Your task to perform on an android device: delete location history Image 0: 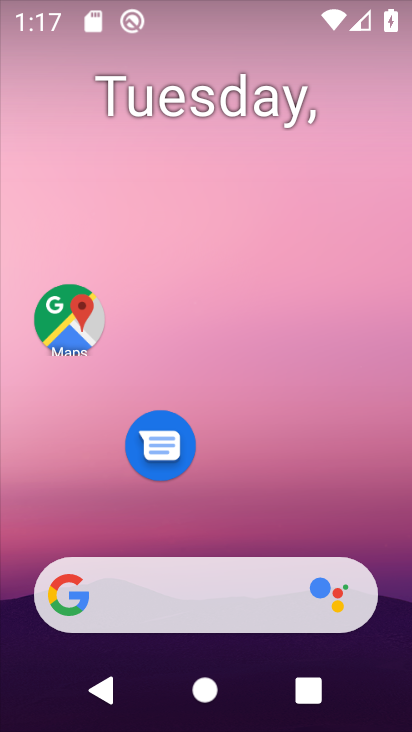
Step 0: drag from (279, 503) to (217, 25)
Your task to perform on an android device: delete location history Image 1: 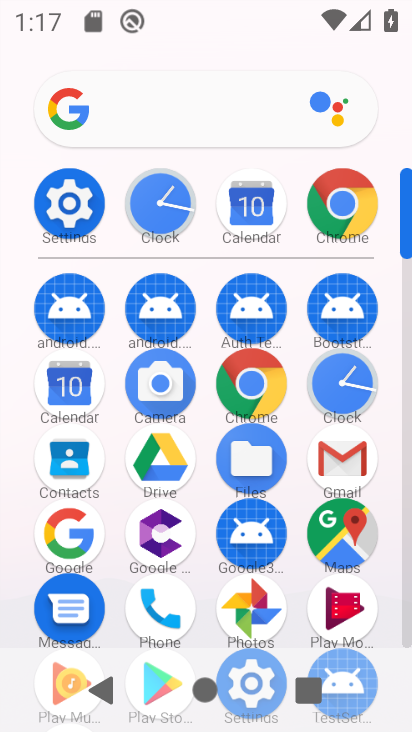
Step 1: click (345, 530)
Your task to perform on an android device: delete location history Image 2: 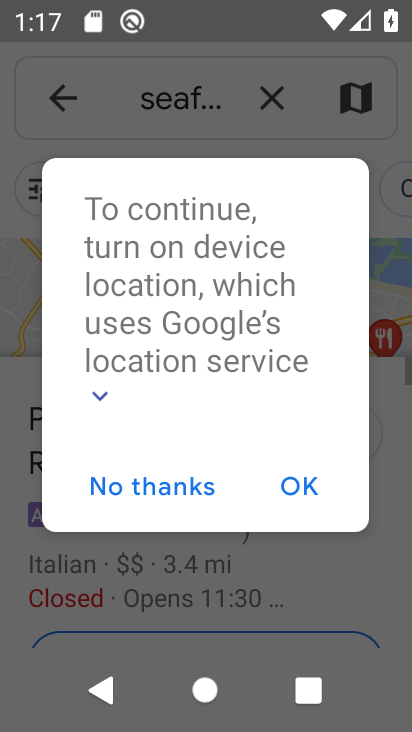
Step 2: click (56, 88)
Your task to perform on an android device: delete location history Image 3: 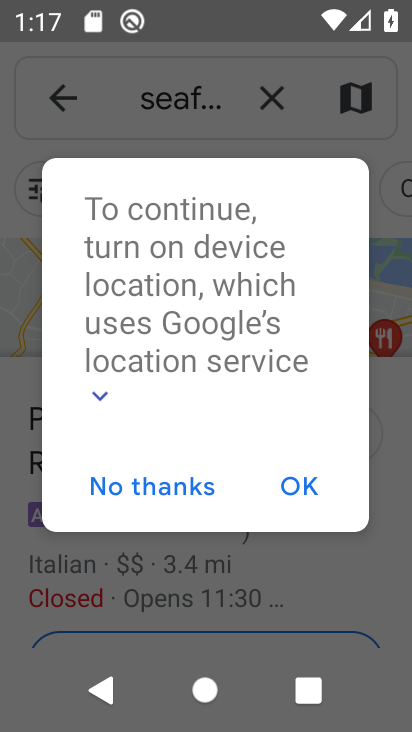
Step 3: click (299, 489)
Your task to perform on an android device: delete location history Image 4: 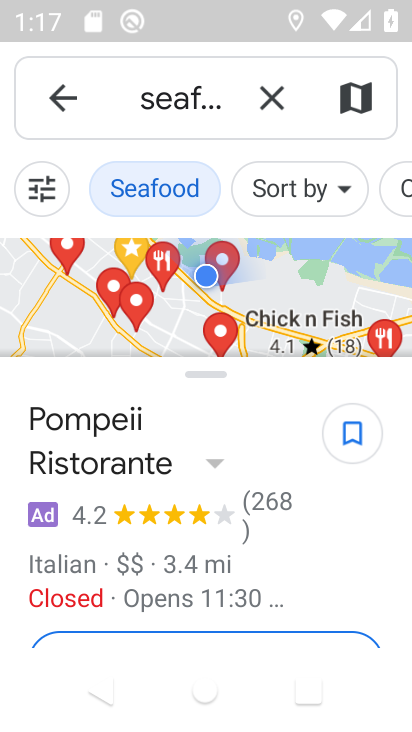
Step 4: click (68, 104)
Your task to perform on an android device: delete location history Image 5: 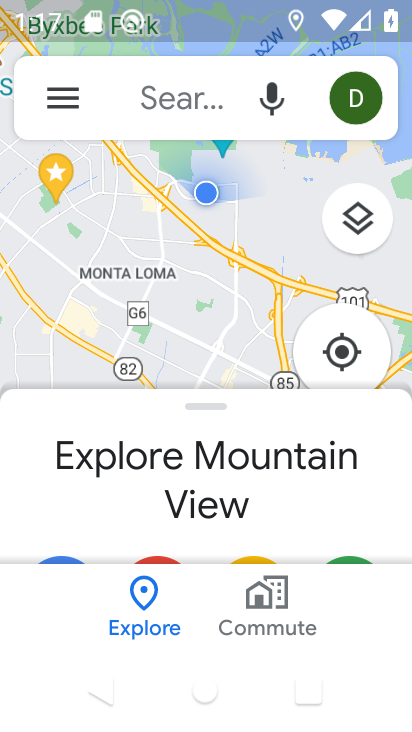
Step 5: click (60, 96)
Your task to perform on an android device: delete location history Image 6: 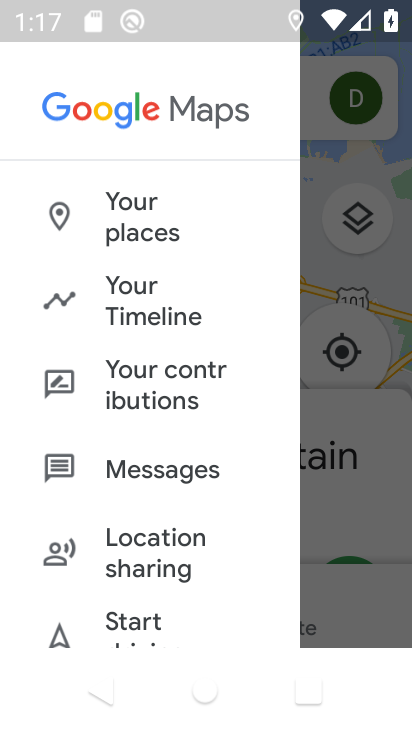
Step 6: click (155, 299)
Your task to perform on an android device: delete location history Image 7: 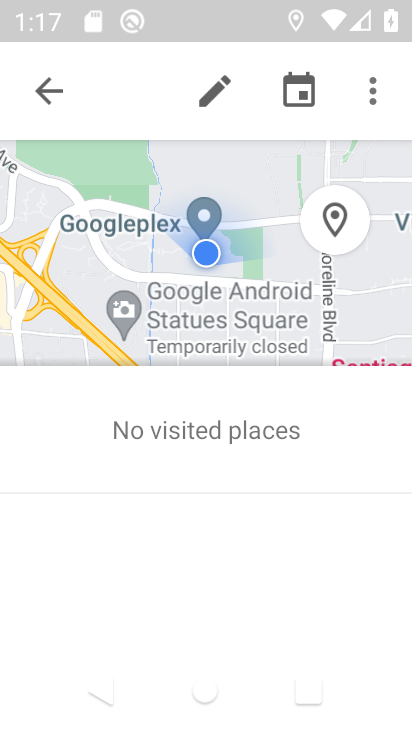
Step 7: click (376, 89)
Your task to perform on an android device: delete location history Image 8: 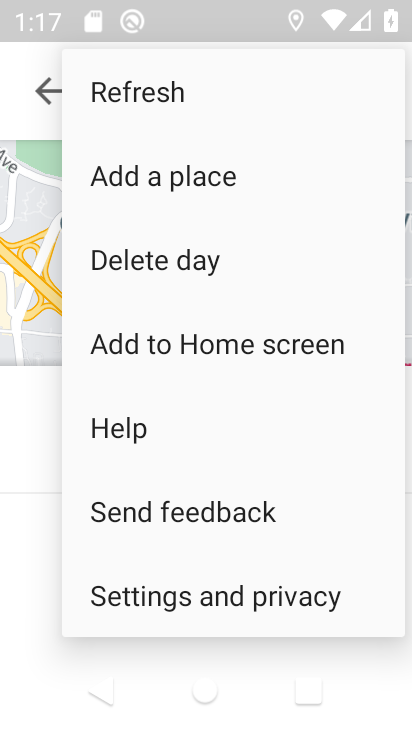
Step 8: click (201, 593)
Your task to perform on an android device: delete location history Image 9: 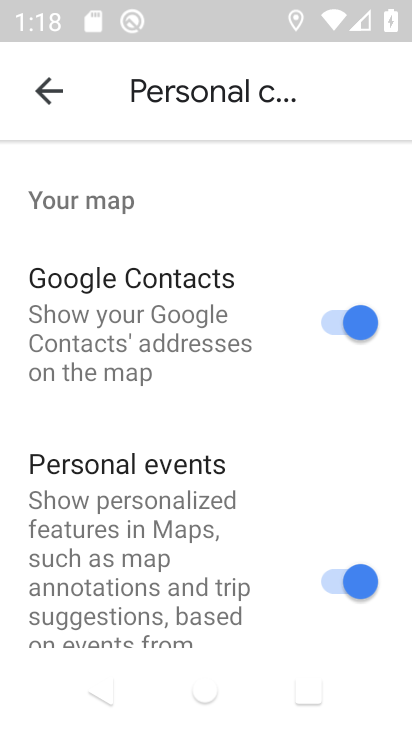
Step 9: drag from (226, 551) to (179, 325)
Your task to perform on an android device: delete location history Image 10: 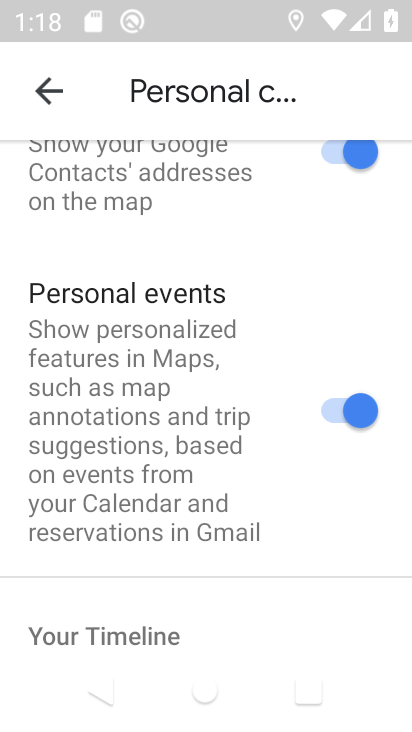
Step 10: drag from (196, 568) to (155, 265)
Your task to perform on an android device: delete location history Image 11: 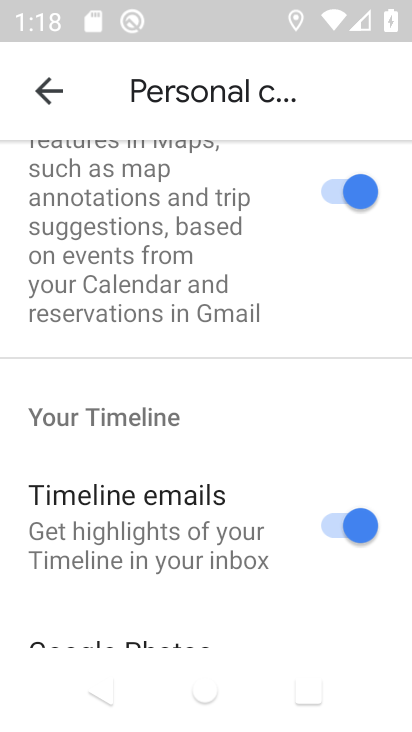
Step 11: drag from (161, 431) to (145, 155)
Your task to perform on an android device: delete location history Image 12: 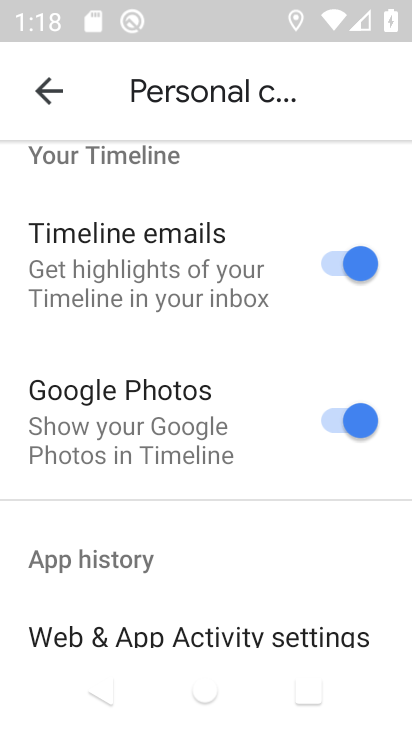
Step 12: drag from (175, 520) to (132, 131)
Your task to perform on an android device: delete location history Image 13: 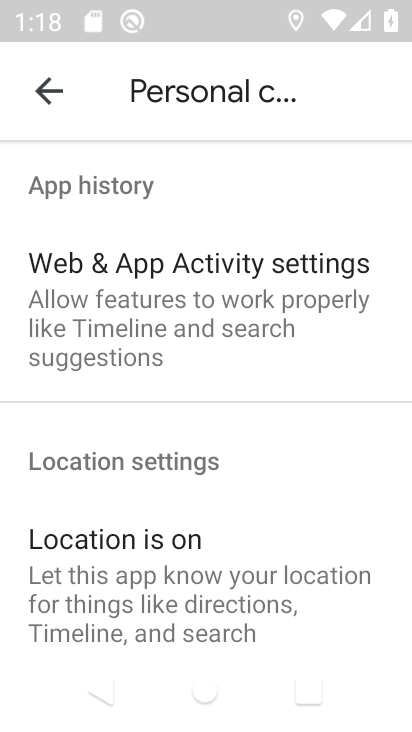
Step 13: drag from (178, 480) to (167, 232)
Your task to perform on an android device: delete location history Image 14: 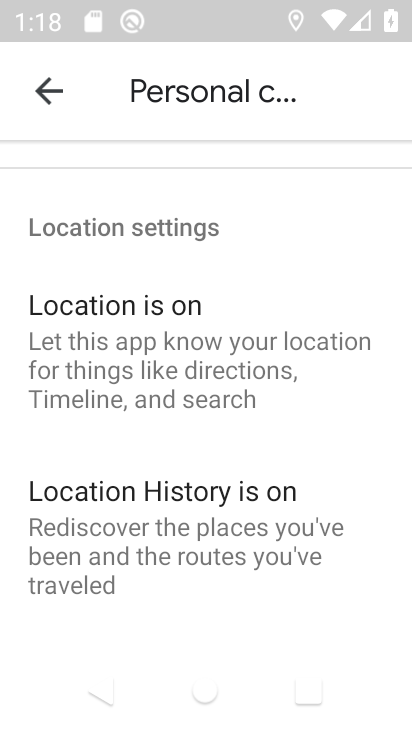
Step 14: drag from (194, 442) to (133, 197)
Your task to perform on an android device: delete location history Image 15: 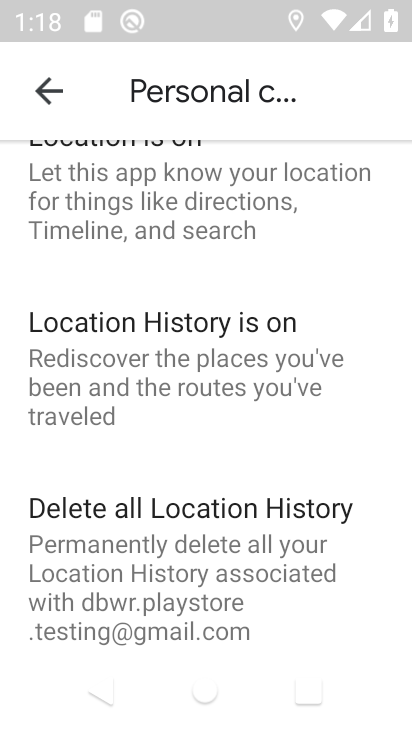
Step 15: click (177, 516)
Your task to perform on an android device: delete location history Image 16: 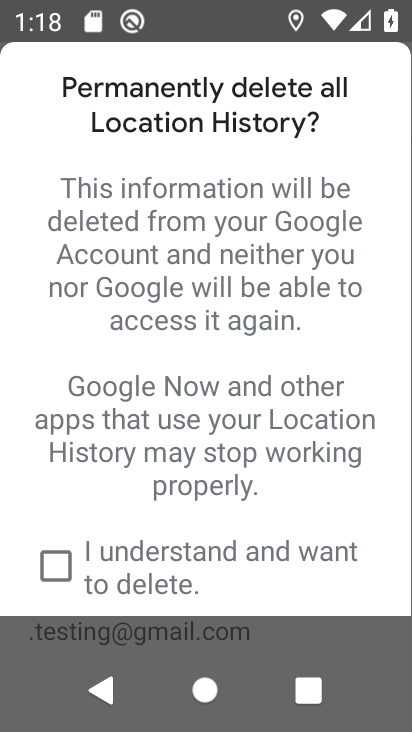
Step 16: click (65, 567)
Your task to perform on an android device: delete location history Image 17: 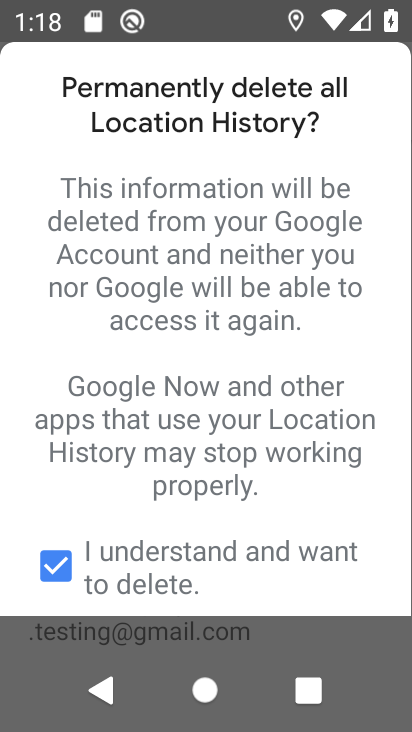
Step 17: task complete